Your task to perform on an android device: Open privacy settings Image 0: 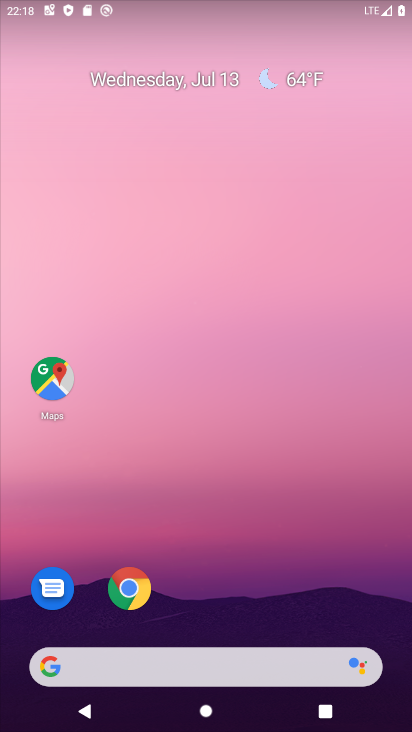
Step 0: drag from (210, 579) to (289, 0)
Your task to perform on an android device: Open privacy settings Image 1: 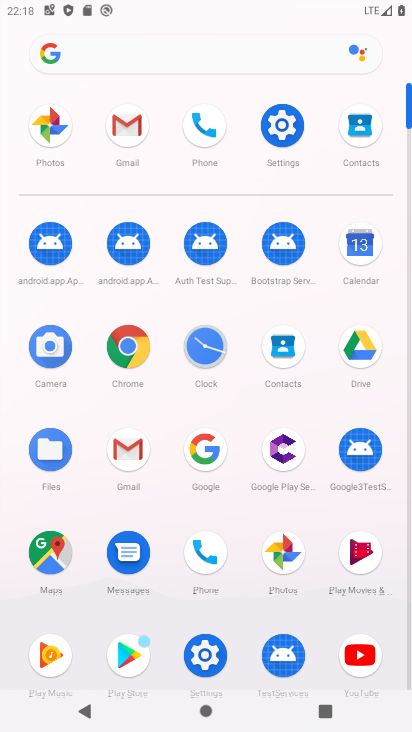
Step 1: click (292, 142)
Your task to perform on an android device: Open privacy settings Image 2: 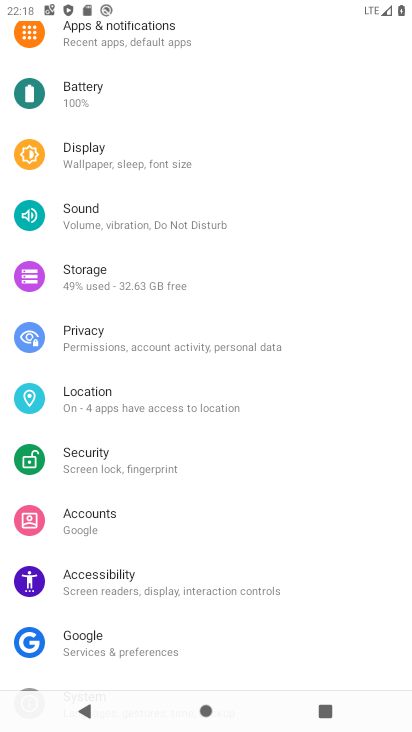
Step 2: click (110, 338)
Your task to perform on an android device: Open privacy settings Image 3: 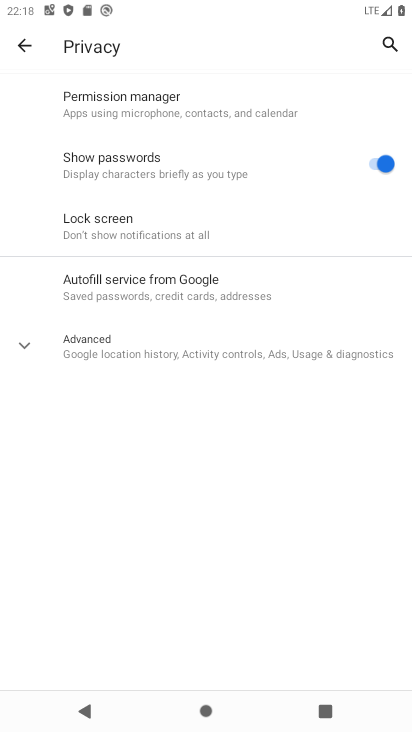
Step 3: task complete